Your task to perform on an android device: Open Yahoo.com Image 0: 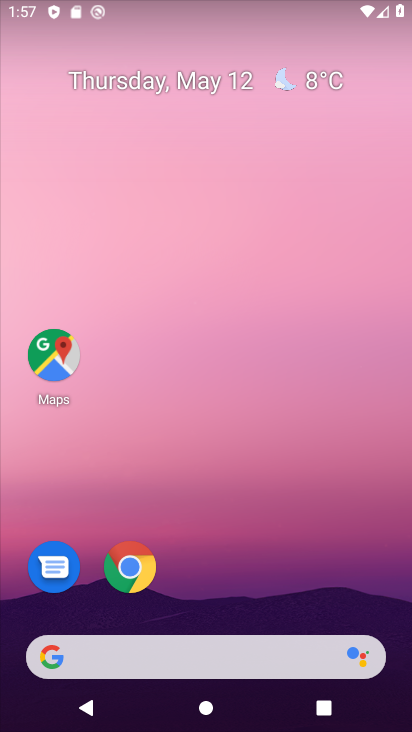
Step 0: click (128, 572)
Your task to perform on an android device: Open Yahoo.com Image 1: 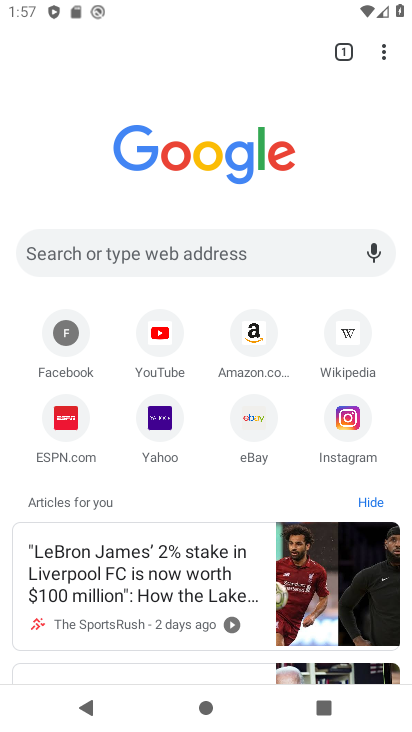
Step 1: click (170, 423)
Your task to perform on an android device: Open Yahoo.com Image 2: 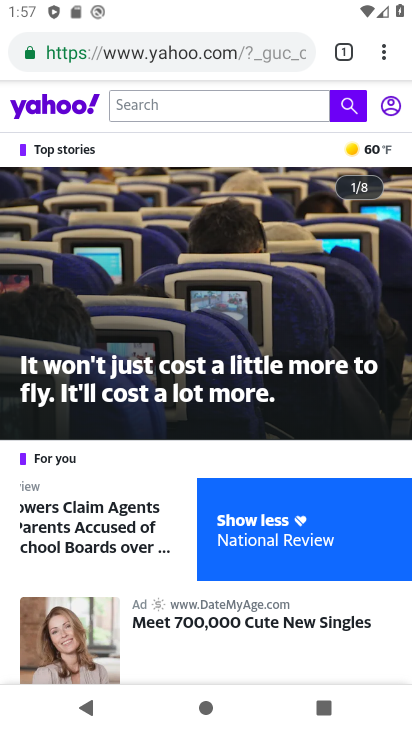
Step 2: task complete